Your task to perform on an android device: Show me the alarms in the clock app Image 0: 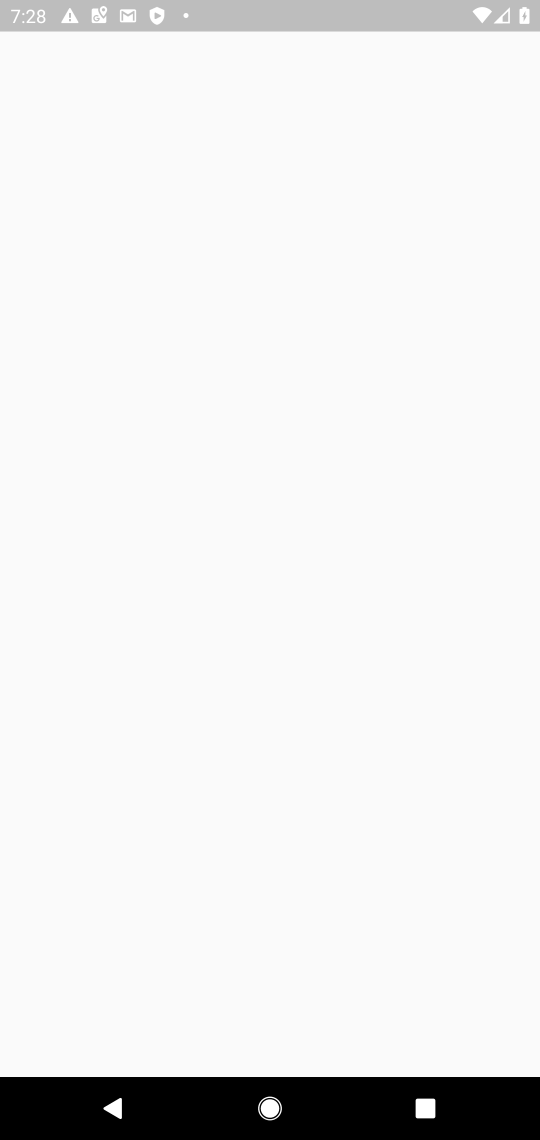
Step 0: press home button
Your task to perform on an android device: Show me the alarms in the clock app Image 1: 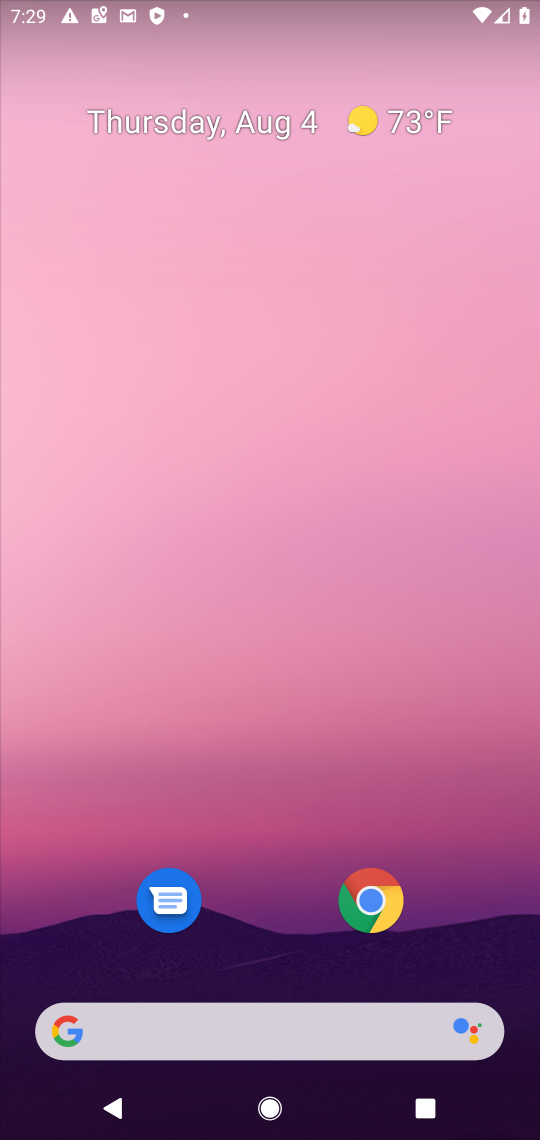
Step 1: drag from (209, 1015) to (342, 153)
Your task to perform on an android device: Show me the alarms in the clock app Image 2: 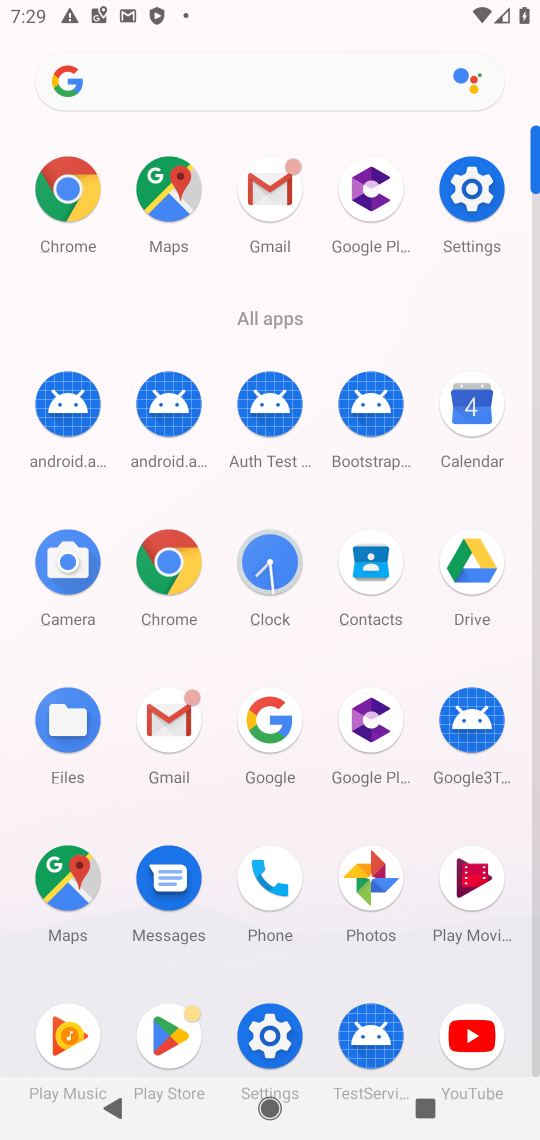
Step 2: click (270, 560)
Your task to perform on an android device: Show me the alarms in the clock app Image 3: 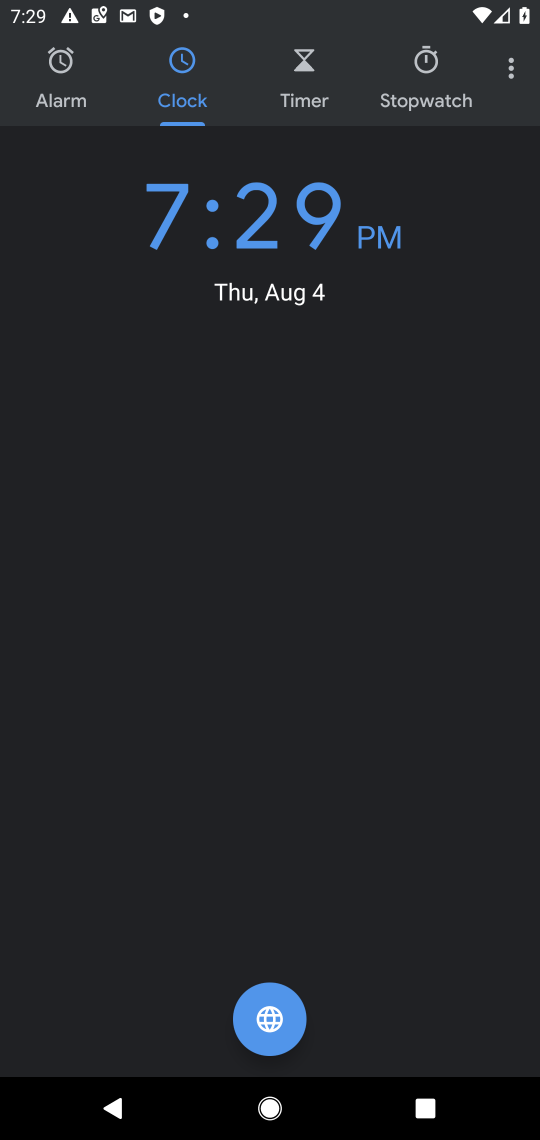
Step 3: click (64, 68)
Your task to perform on an android device: Show me the alarms in the clock app Image 4: 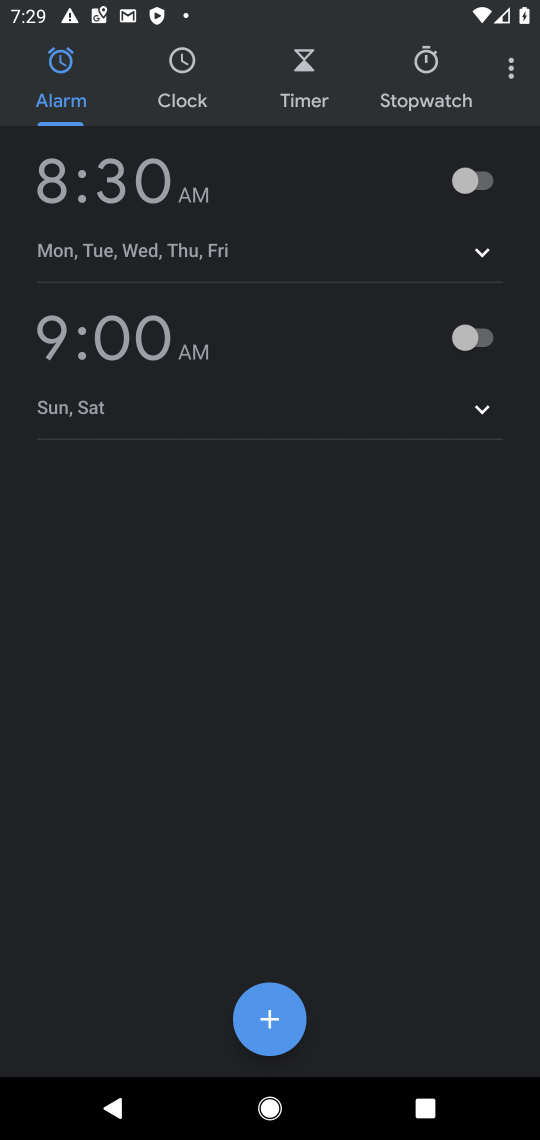
Step 4: click (274, 1021)
Your task to perform on an android device: Show me the alarms in the clock app Image 5: 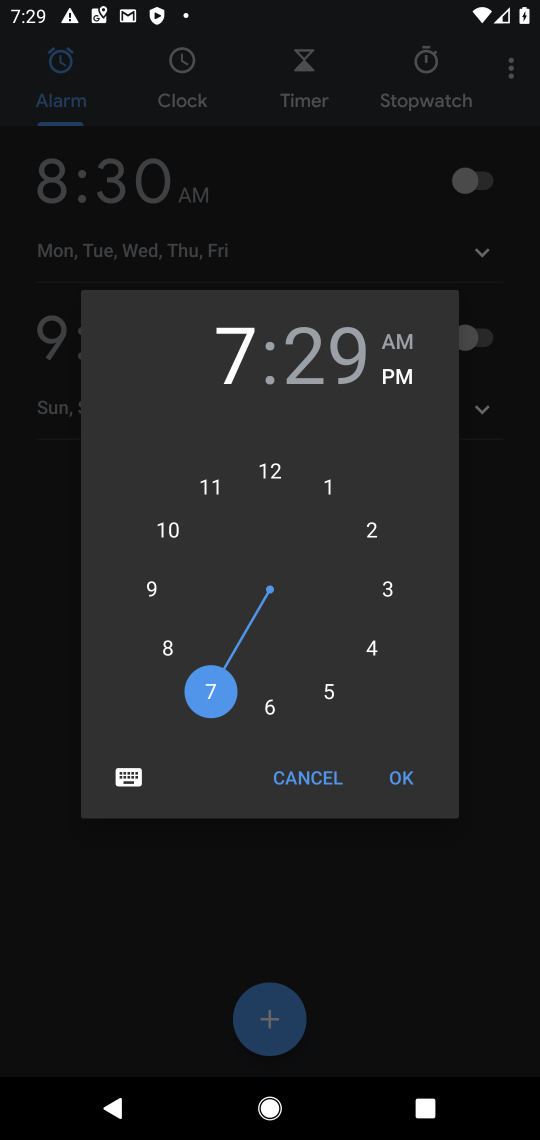
Step 5: click (264, 476)
Your task to perform on an android device: Show me the alarms in the clock app Image 6: 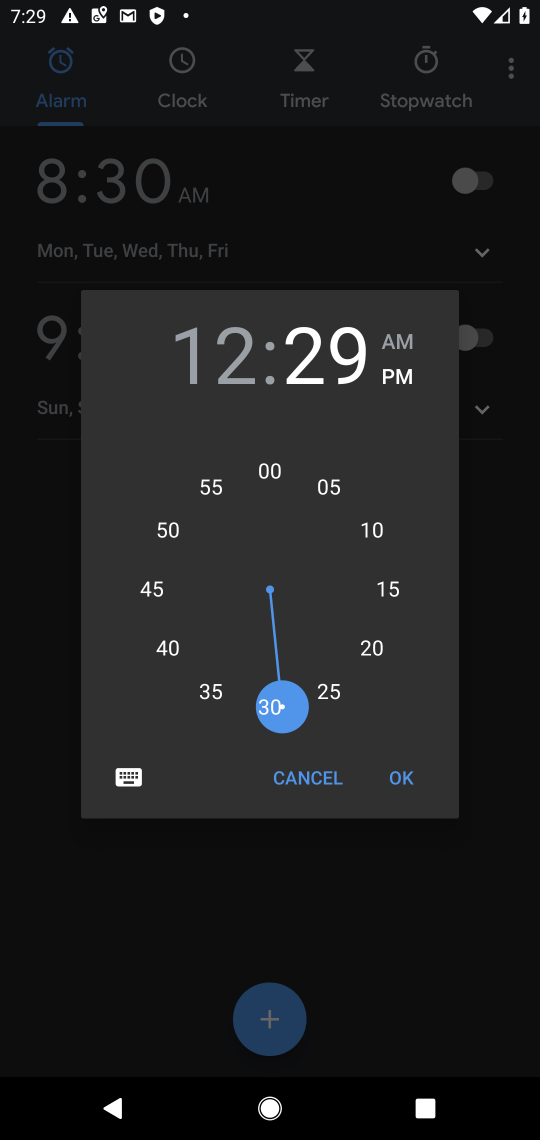
Step 6: click (264, 476)
Your task to perform on an android device: Show me the alarms in the clock app Image 7: 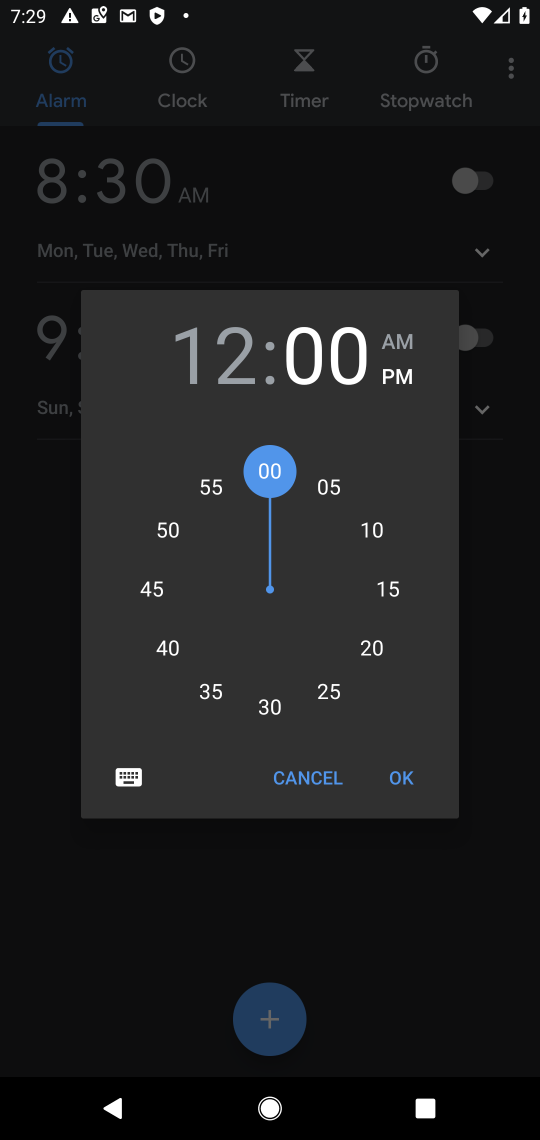
Step 7: click (400, 348)
Your task to perform on an android device: Show me the alarms in the clock app Image 8: 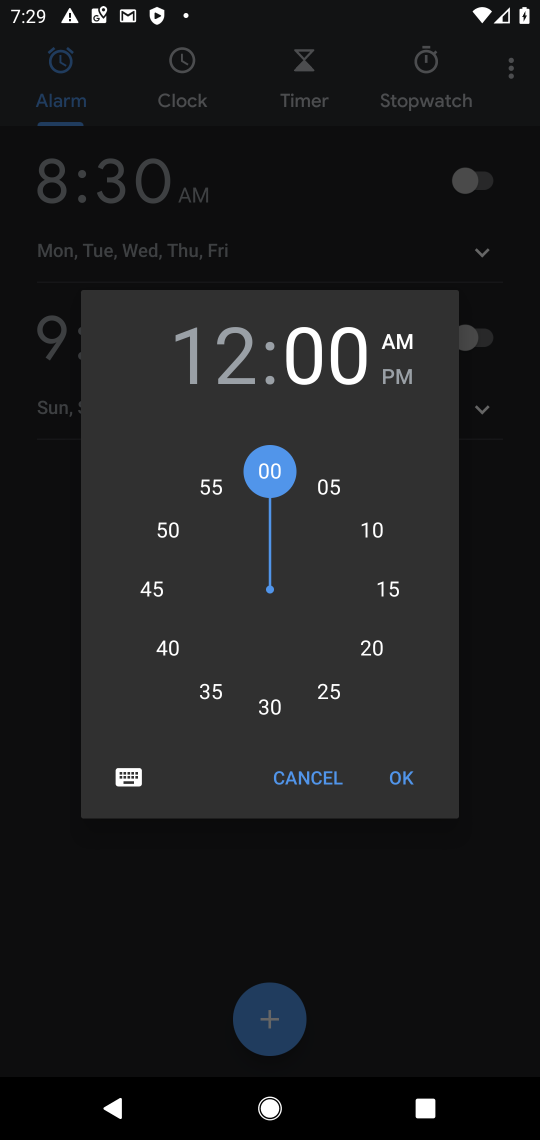
Step 8: click (398, 772)
Your task to perform on an android device: Show me the alarms in the clock app Image 9: 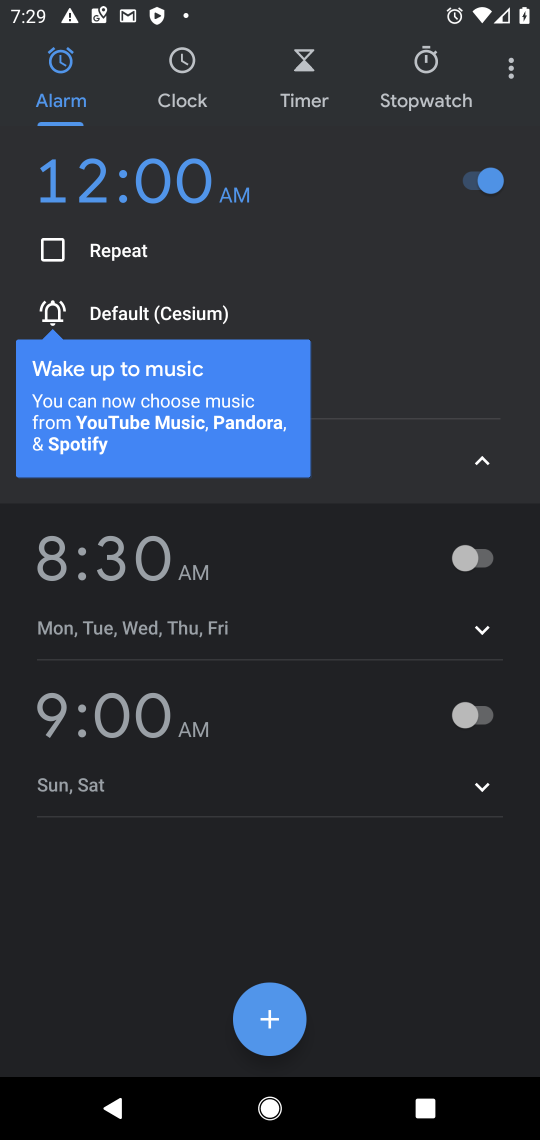
Step 9: task complete